Your task to perform on an android device: open wifi settings Image 0: 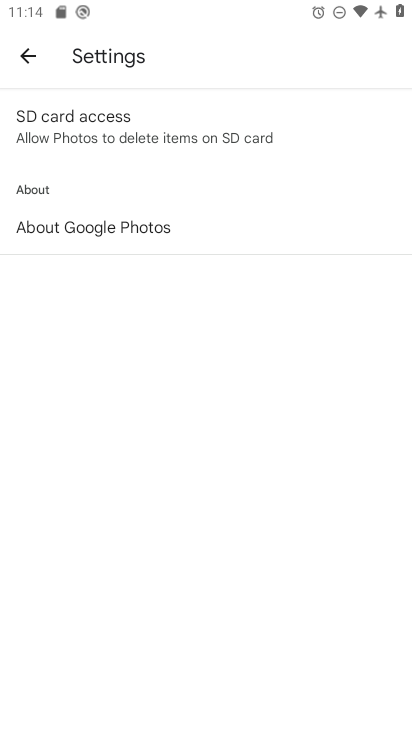
Step 0: press home button
Your task to perform on an android device: open wifi settings Image 1: 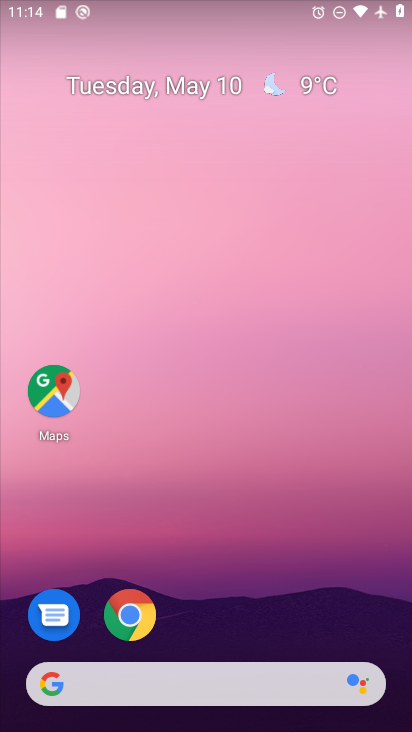
Step 1: drag from (370, 637) to (216, 155)
Your task to perform on an android device: open wifi settings Image 2: 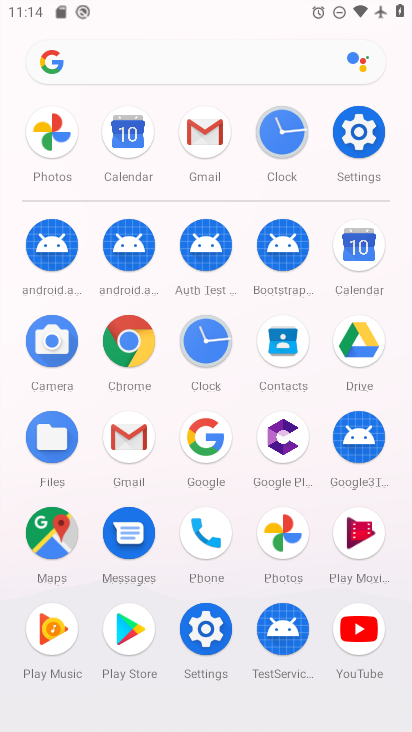
Step 2: click (203, 625)
Your task to perform on an android device: open wifi settings Image 3: 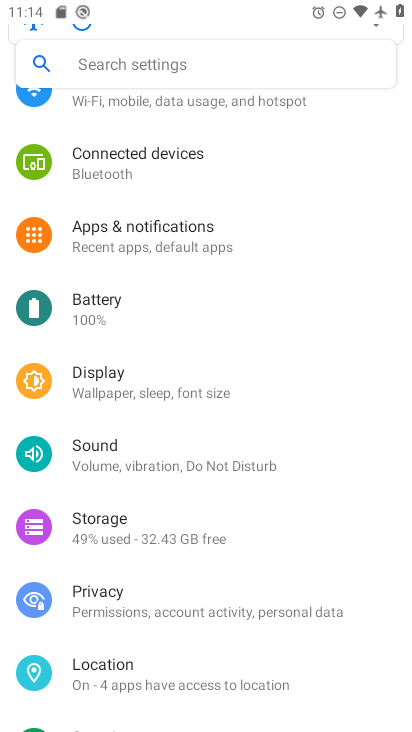
Step 3: drag from (275, 240) to (293, 527)
Your task to perform on an android device: open wifi settings Image 4: 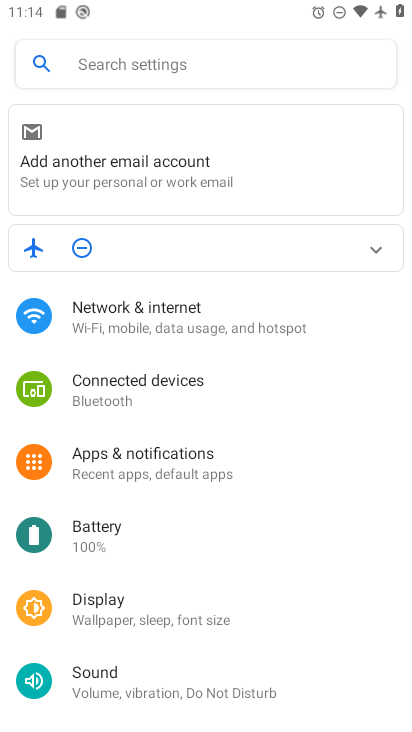
Step 4: click (118, 306)
Your task to perform on an android device: open wifi settings Image 5: 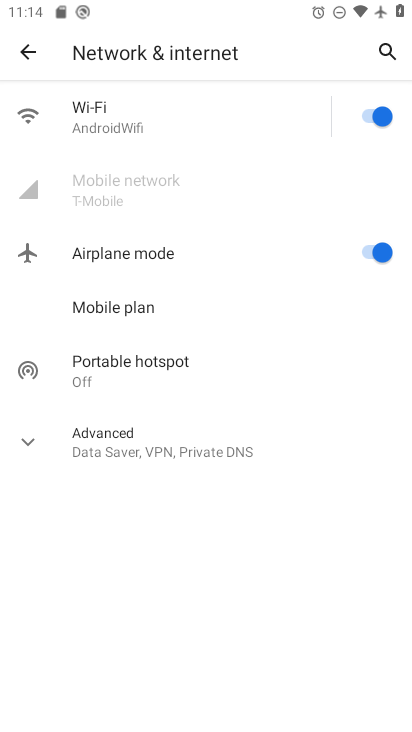
Step 5: click (90, 117)
Your task to perform on an android device: open wifi settings Image 6: 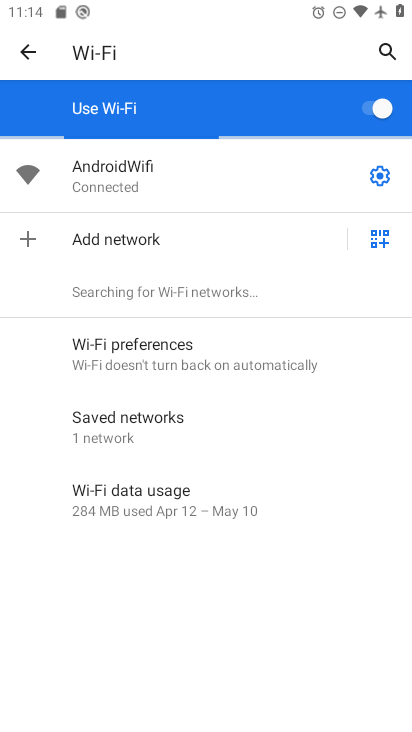
Step 6: click (379, 175)
Your task to perform on an android device: open wifi settings Image 7: 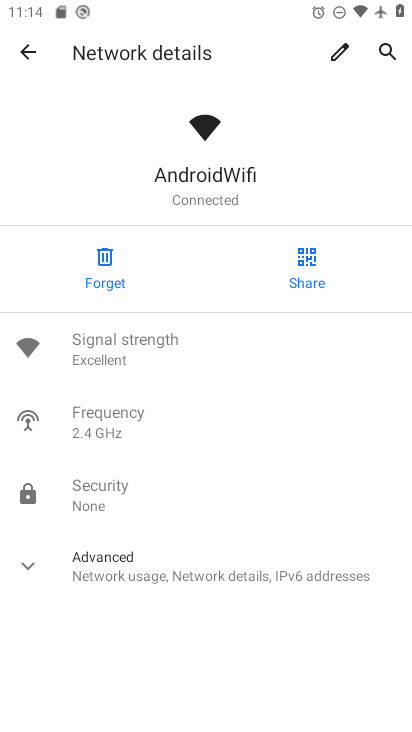
Step 7: click (17, 563)
Your task to perform on an android device: open wifi settings Image 8: 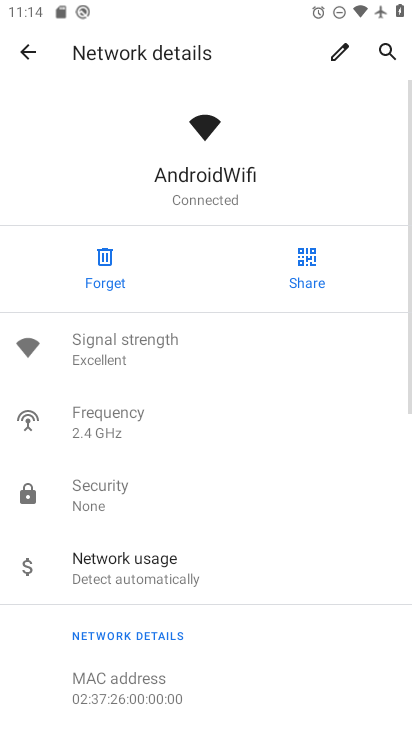
Step 8: task complete